Your task to perform on an android device: Open calendar and show me the third week of next month Image 0: 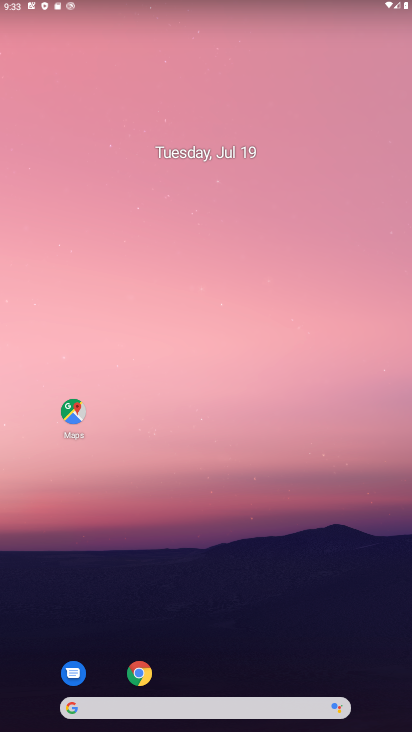
Step 0: drag from (231, 661) to (267, 175)
Your task to perform on an android device: Open calendar and show me the third week of next month Image 1: 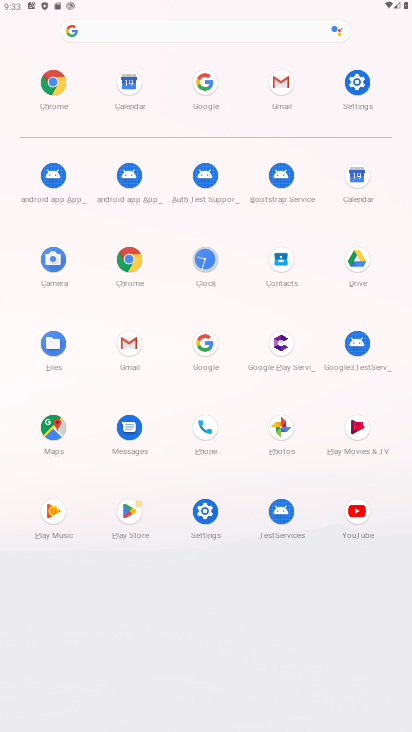
Step 1: click (354, 192)
Your task to perform on an android device: Open calendar and show me the third week of next month Image 2: 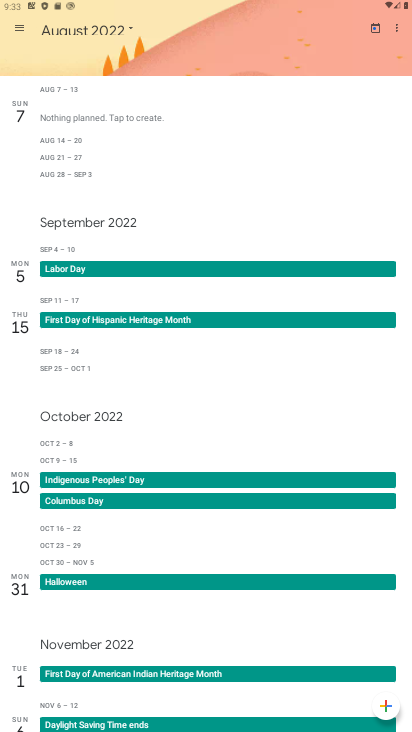
Step 2: click (141, 26)
Your task to perform on an android device: Open calendar and show me the third week of next month Image 3: 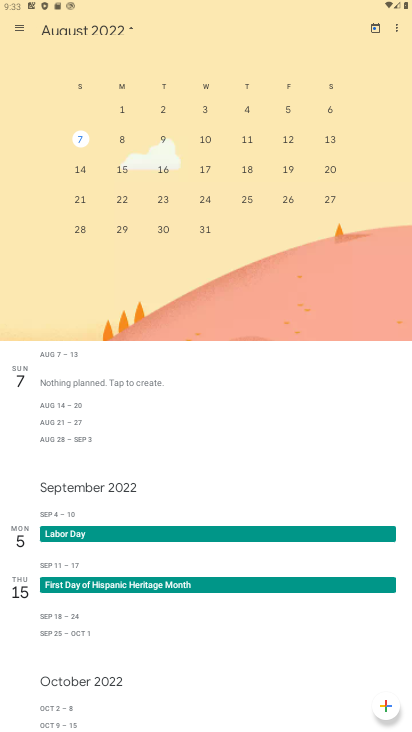
Step 3: click (79, 178)
Your task to perform on an android device: Open calendar and show me the third week of next month Image 4: 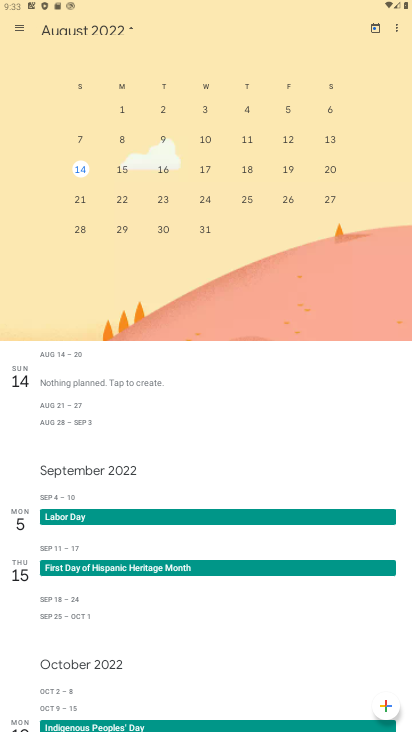
Step 4: task complete